Your task to perform on an android device: open a bookmark in the chrome app Image 0: 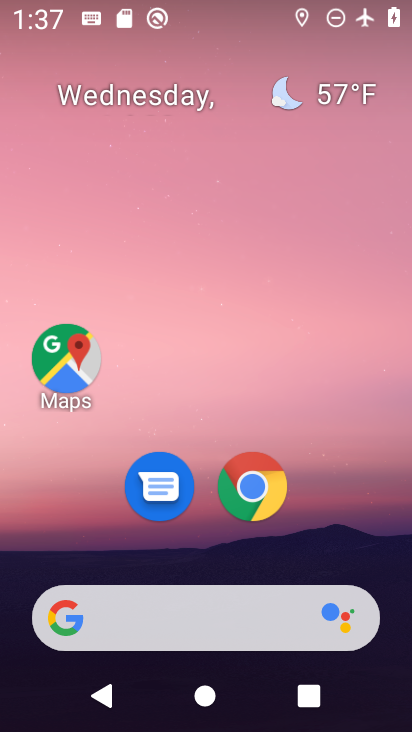
Step 0: drag from (368, 564) to (361, 174)
Your task to perform on an android device: open a bookmark in the chrome app Image 1: 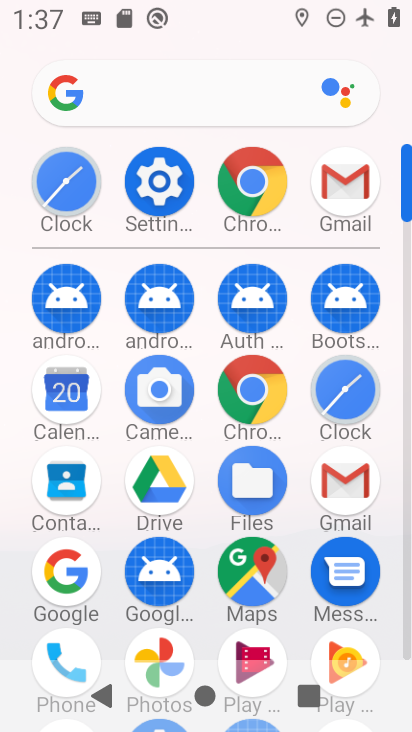
Step 1: click (270, 383)
Your task to perform on an android device: open a bookmark in the chrome app Image 2: 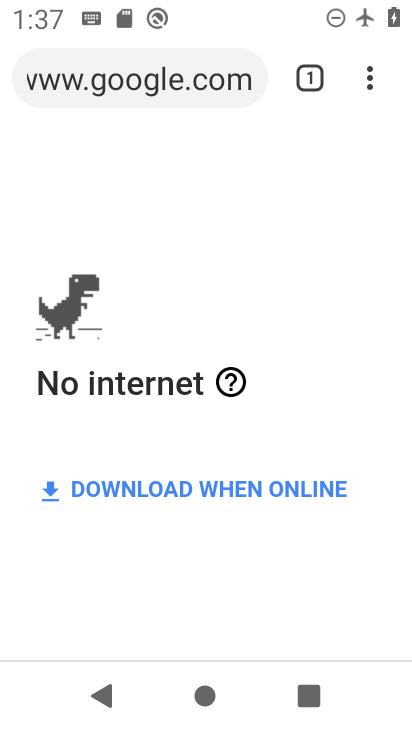
Step 2: click (368, 85)
Your task to perform on an android device: open a bookmark in the chrome app Image 3: 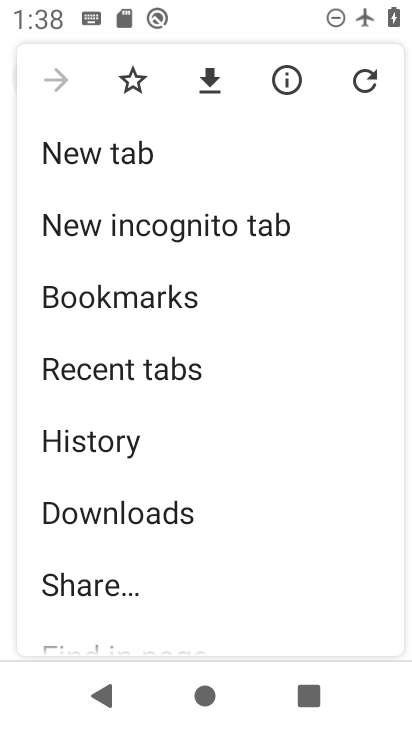
Step 3: click (200, 309)
Your task to perform on an android device: open a bookmark in the chrome app Image 4: 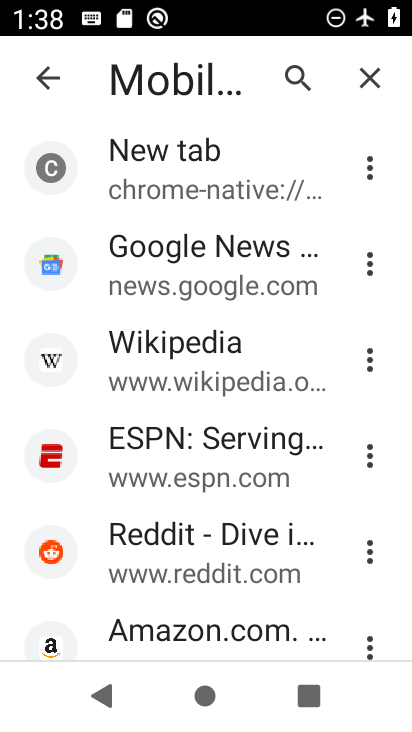
Step 4: click (211, 481)
Your task to perform on an android device: open a bookmark in the chrome app Image 5: 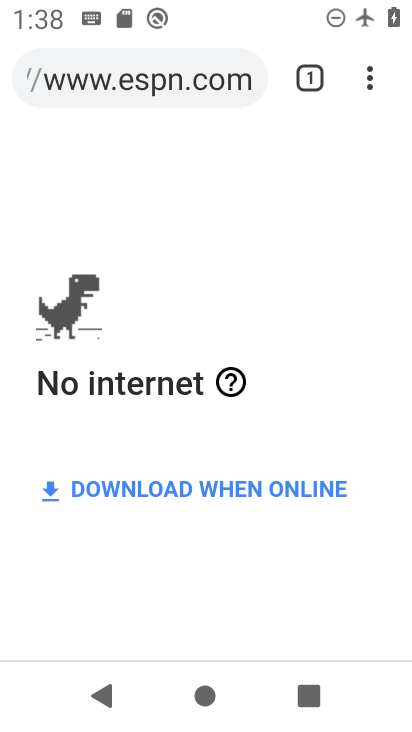
Step 5: task complete